Your task to perform on an android device: turn off location history Image 0: 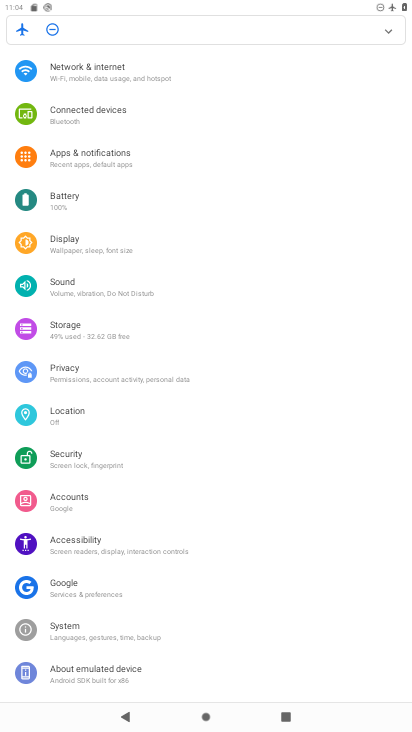
Step 0: click (81, 413)
Your task to perform on an android device: turn off location history Image 1: 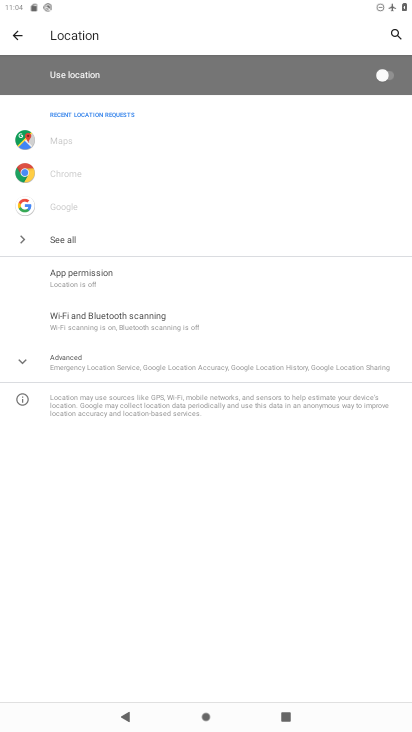
Step 1: click (127, 370)
Your task to perform on an android device: turn off location history Image 2: 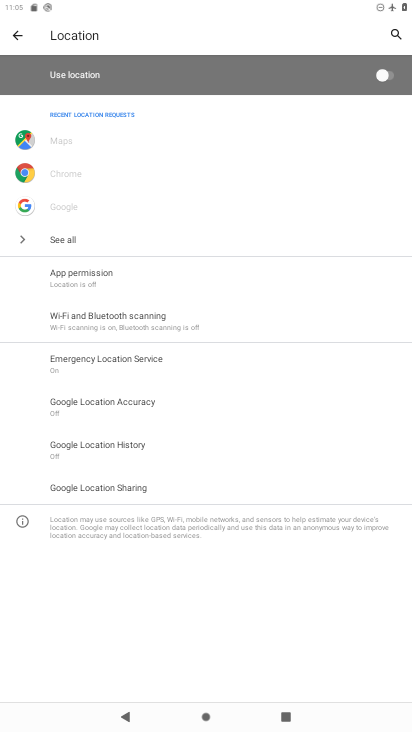
Step 2: click (136, 444)
Your task to perform on an android device: turn off location history Image 3: 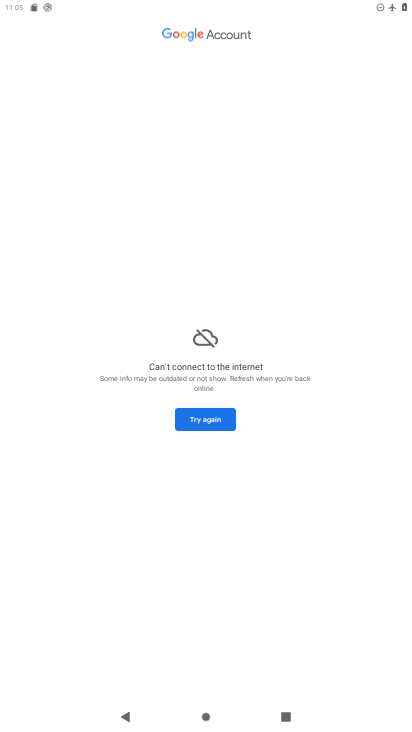
Step 3: task complete